Your task to perform on an android device: allow notifications from all sites in the chrome app Image 0: 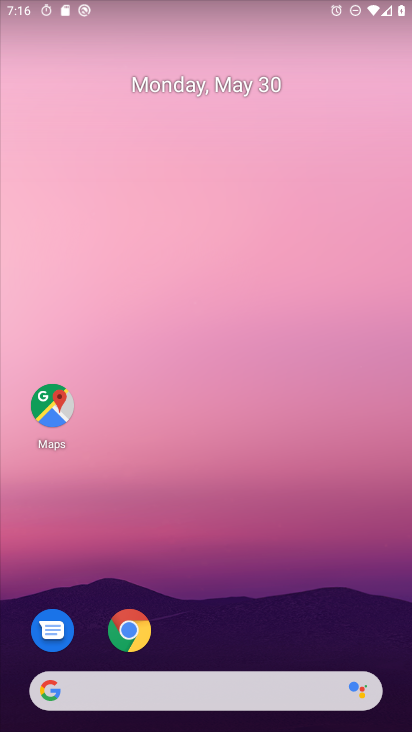
Step 0: drag from (390, 639) to (206, 13)
Your task to perform on an android device: allow notifications from all sites in the chrome app Image 1: 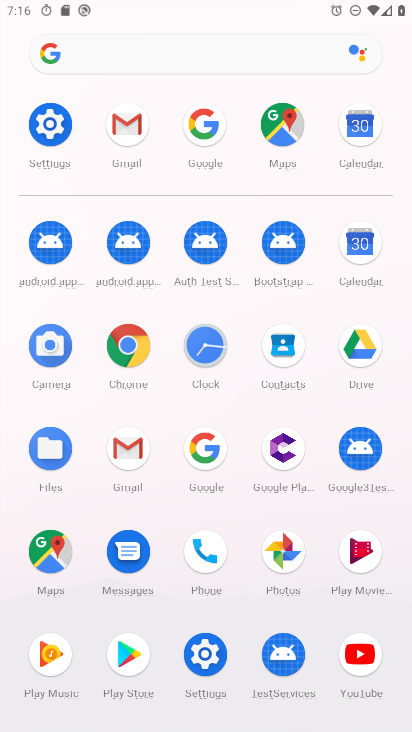
Step 1: click (140, 354)
Your task to perform on an android device: allow notifications from all sites in the chrome app Image 2: 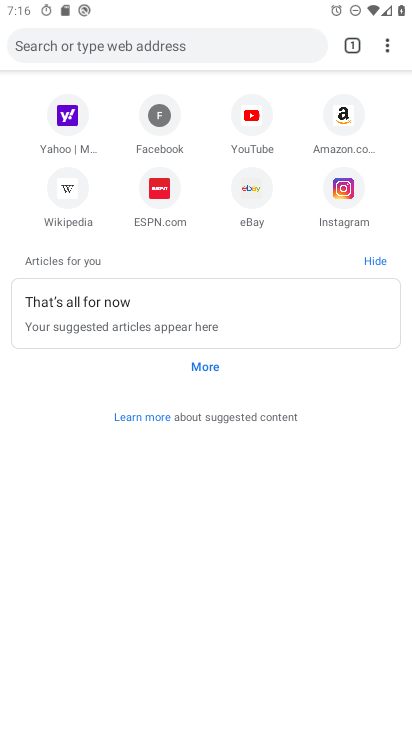
Step 2: click (386, 43)
Your task to perform on an android device: allow notifications from all sites in the chrome app Image 3: 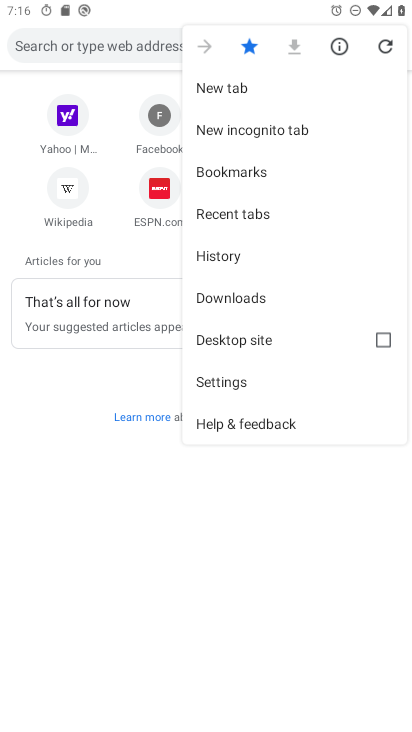
Step 3: click (250, 380)
Your task to perform on an android device: allow notifications from all sites in the chrome app Image 4: 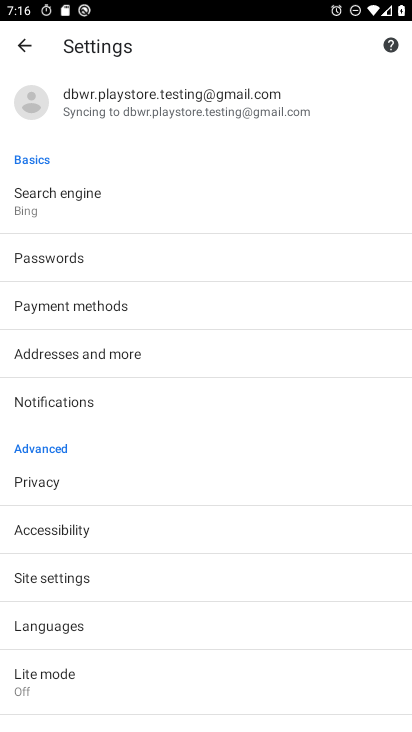
Step 4: click (101, 412)
Your task to perform on an android device: allow notifications from all sites in the chrome app Image 5: 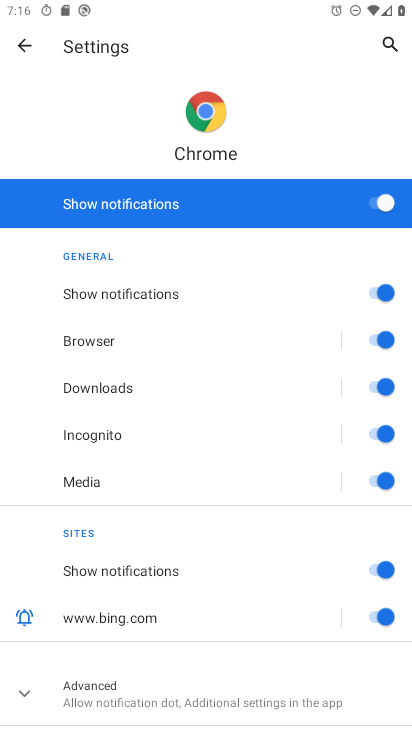
Step 5: task complete